Your task to perform on an android device: Open Youtube and go to "Your channel" Image 0: 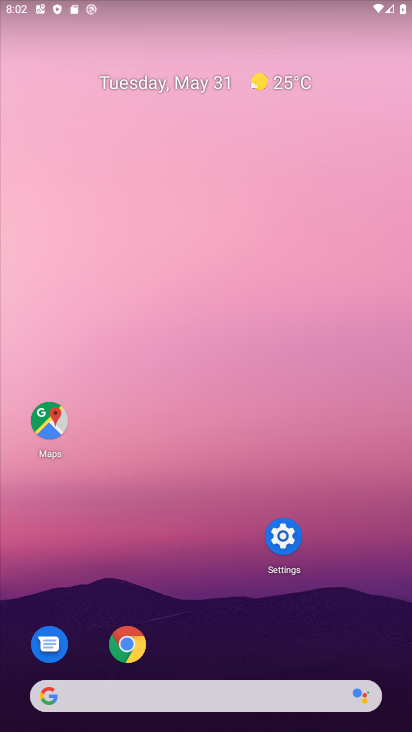
Step 0: press home button
Your task to perform on an android device: Open Youtube and go to "Your channel" Image 1: 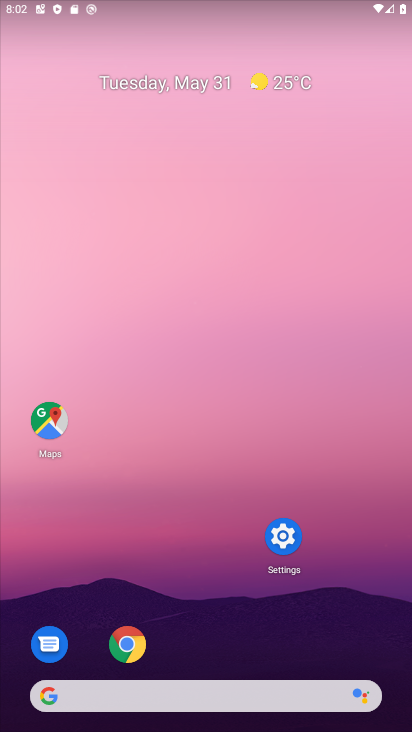
Step 1: drag from (216, 719) to (214, 272)
Your task to perform on an android device: Open Youtube and go to "Your channel" Image 2: 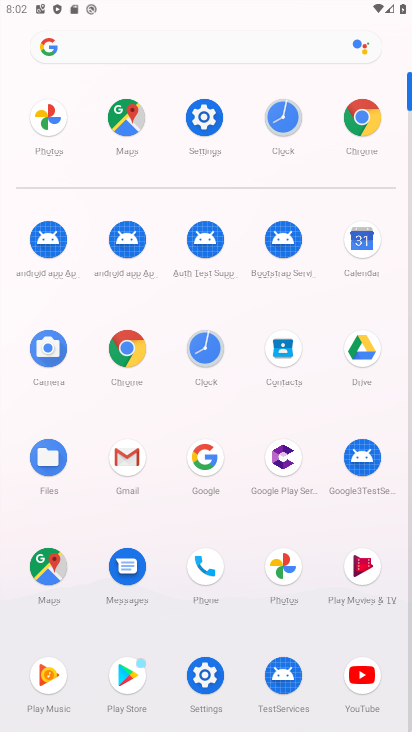
Step 2: click (358, 684)
Your task to perform on an android device: Open Youtube and go to "Your channel" Image 3: 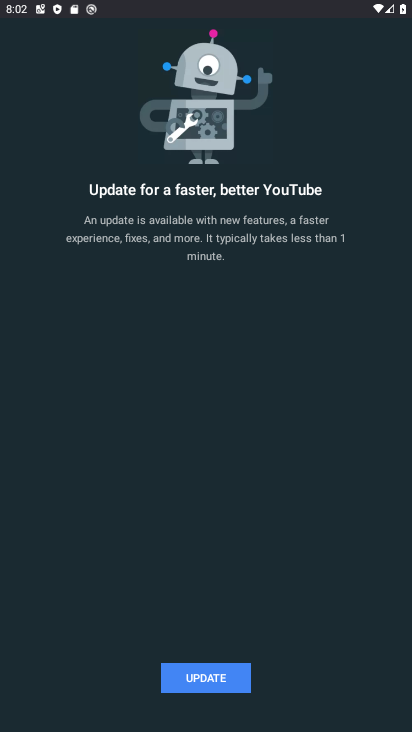
Step 3: click (232, 674)
Your task to perform on an android device: Open Youtube and go to "Your channel" Image 4: 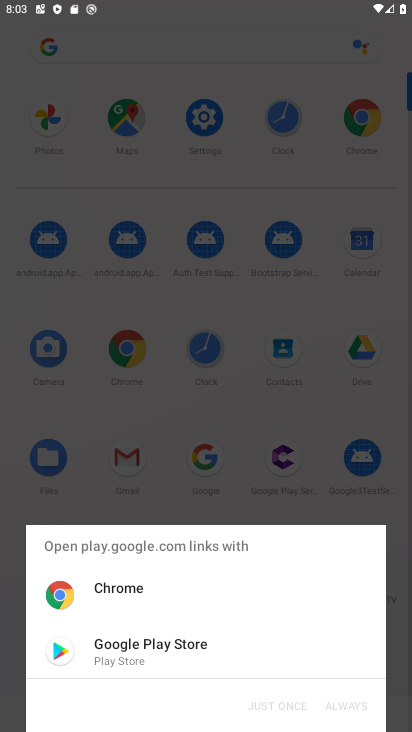
Step 4: click (150, 628)
Your task to perform on an android device: Open Youtube and go to "Your channel" Image 5: 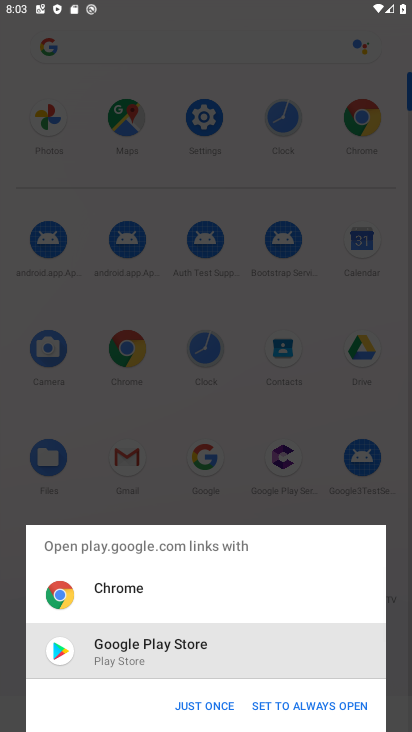
Step 5: click (199, 708)
Your task to perform on an android device: Open Youtube and go to "Your channel" Image 6: 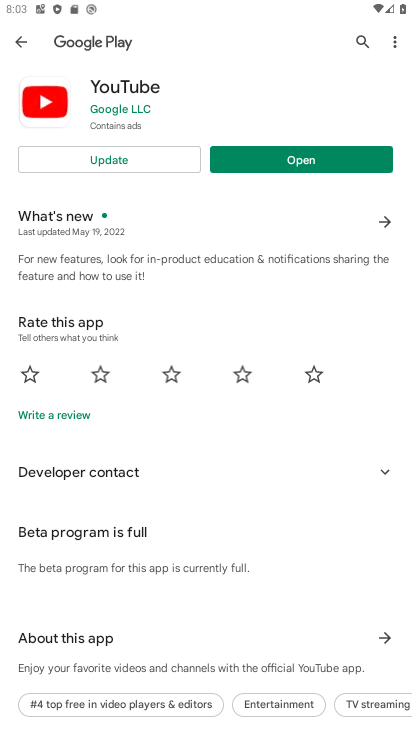
Step 6: click (90, 158)
Your task to perform on an android device: Open Youtube and go to "Your channel" Image 7: 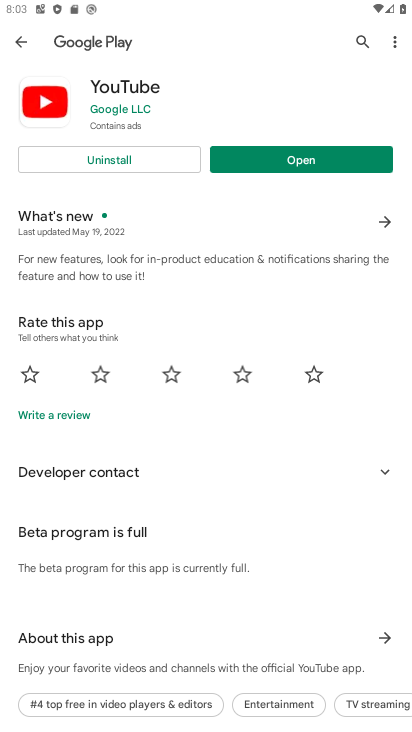
Step 7: click (282, 160)
Your task to perform on an android device: Open Youtube and go to "Your channel" Image 8: 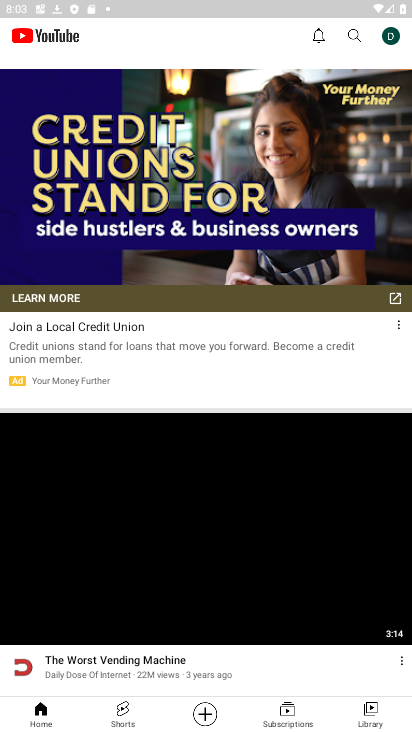
Step 8: click (380, 36)
Your task to perform on an android device: Open Youtube and go to "Your channel" Image 9: 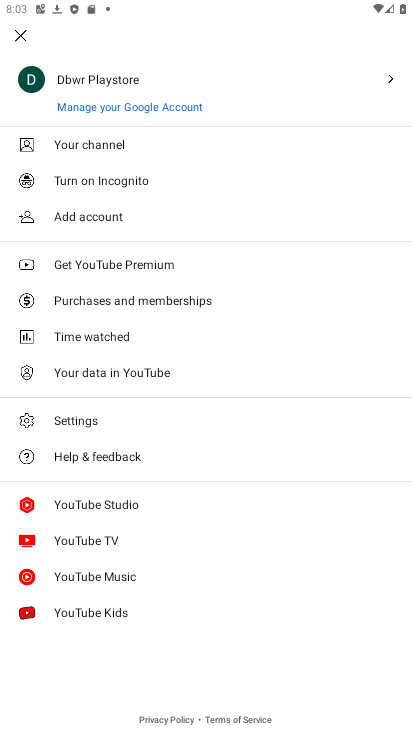
Step 9: click (99, 148)
Your task to perform on an android device: Open Youtube and go to "Your channel" Image 10: 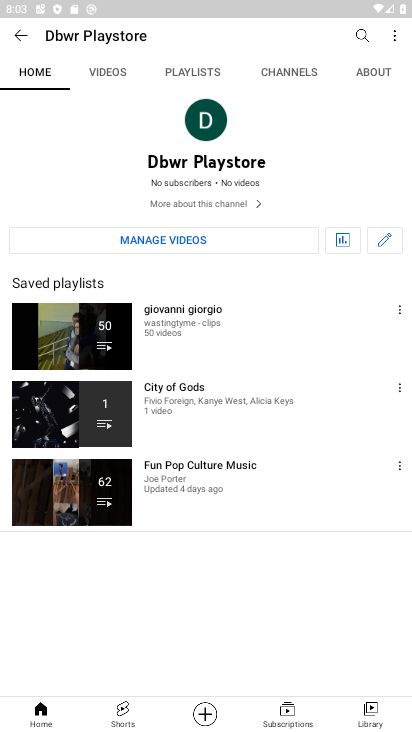
Step 10: task complete